Your task to perform on an android device: Open the web browser Image 0: 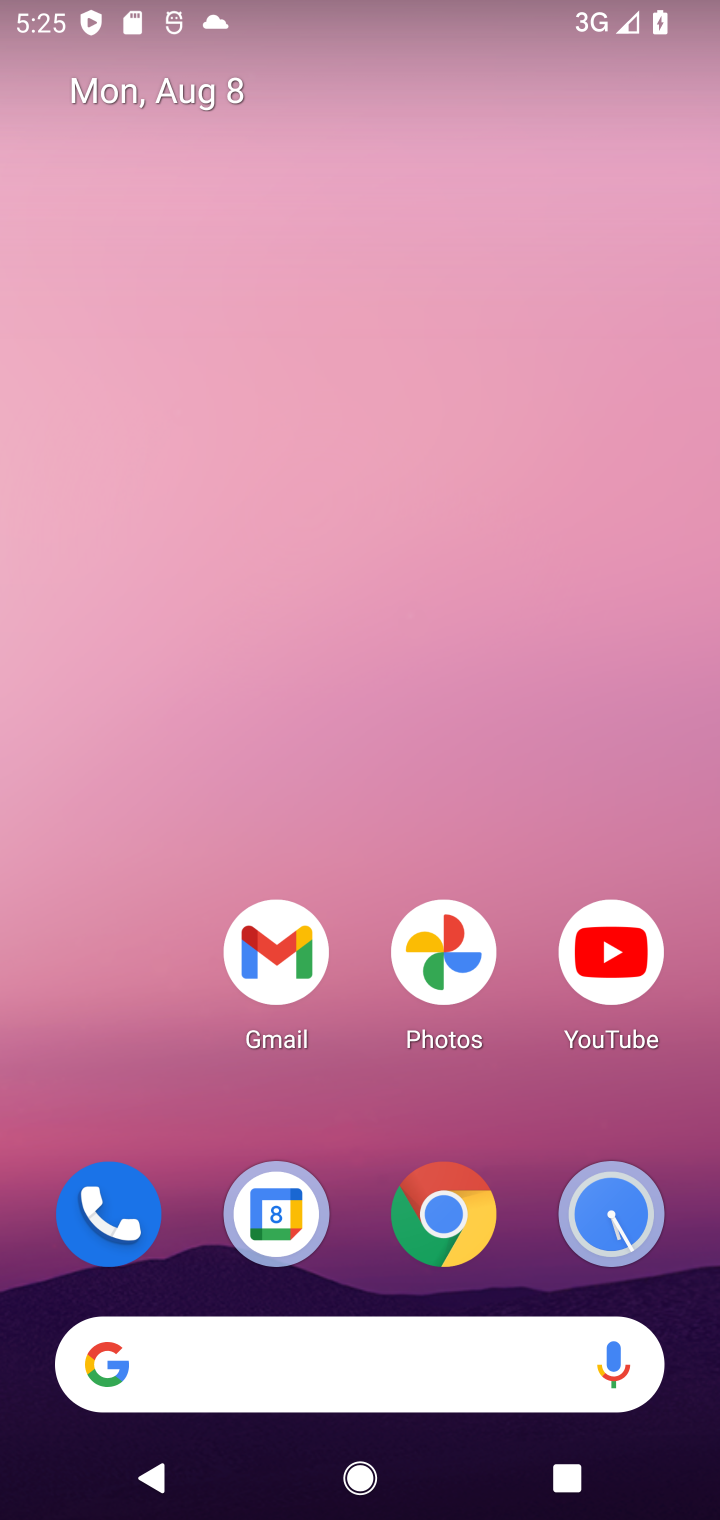
Step 0: click (441, 1221)
Your task to perform on an android device: Open the web browser Image 1: 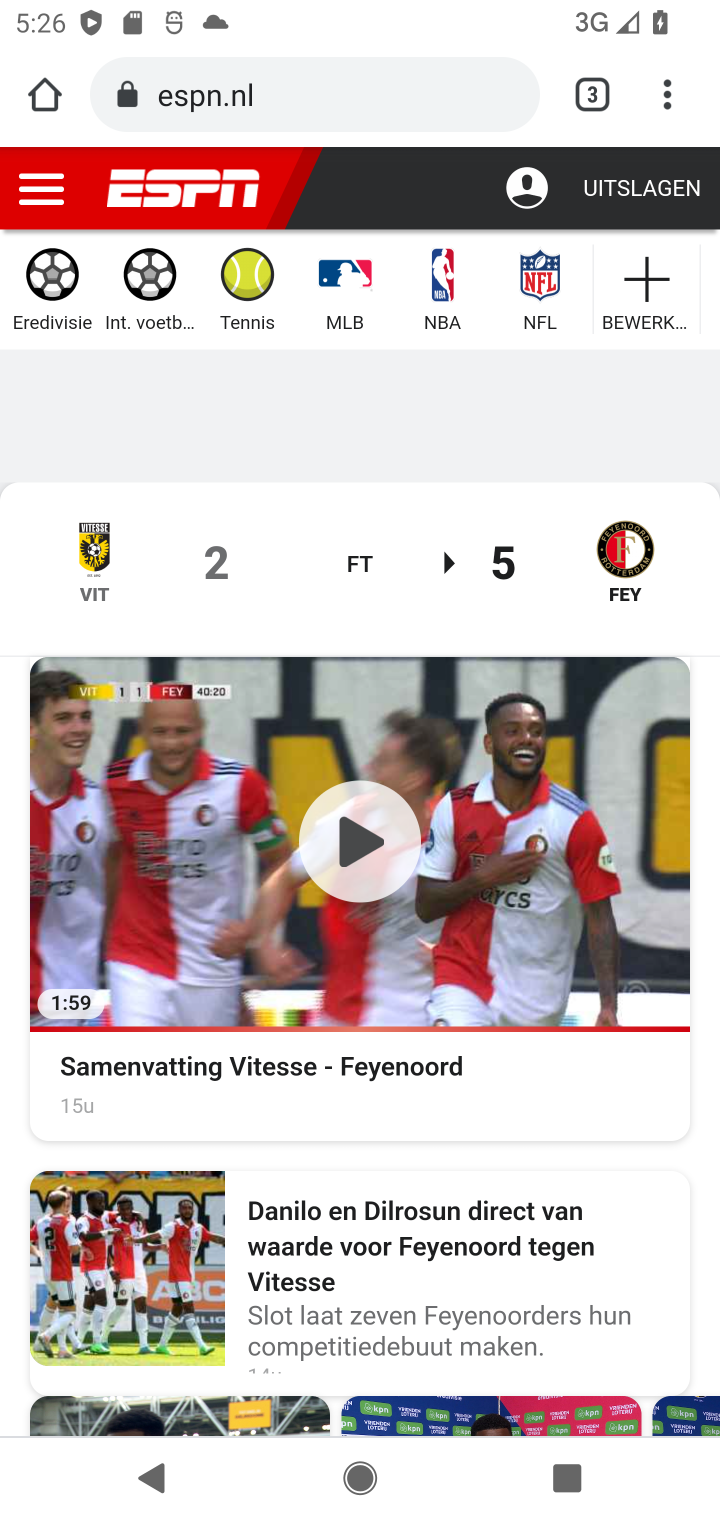
Step 1: task complete